Your task to perform on an android device: check android version Image 0: 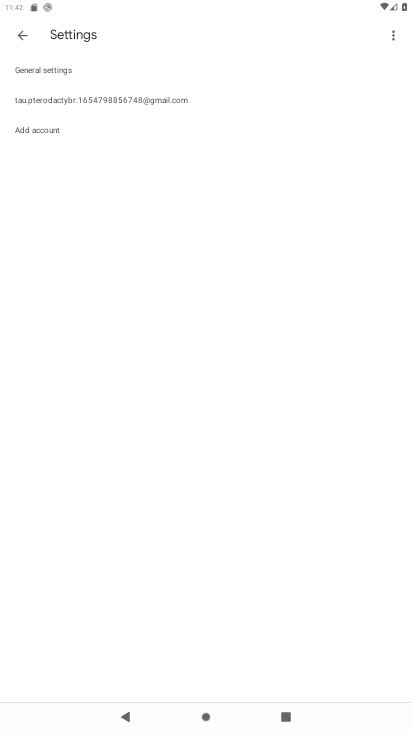
Step 0: press home button
Your task to perform on an android device: check android version Image 1: 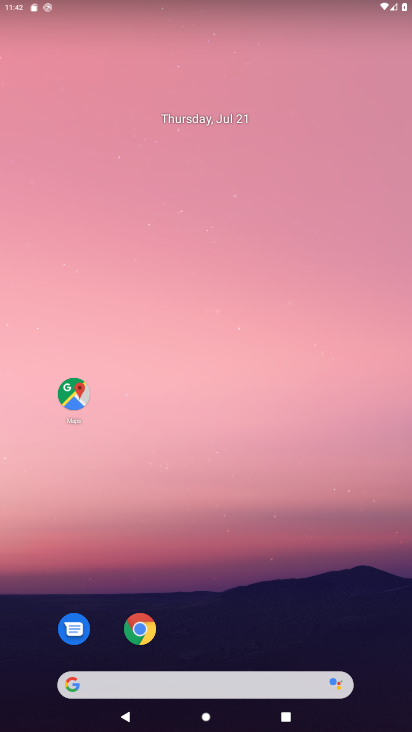
Step 1: drag from (202, 618) to (210, 87)
Your task to perform on an android device: check android version Image 2: 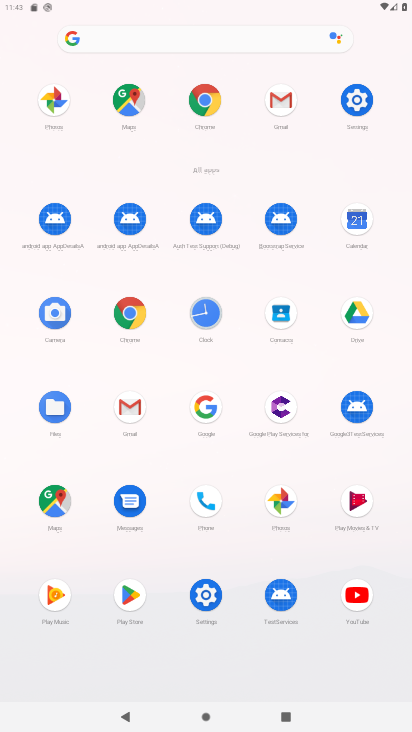
Step 2: click (205, 610)
Your task to perform on an android device: check android version Image 3: 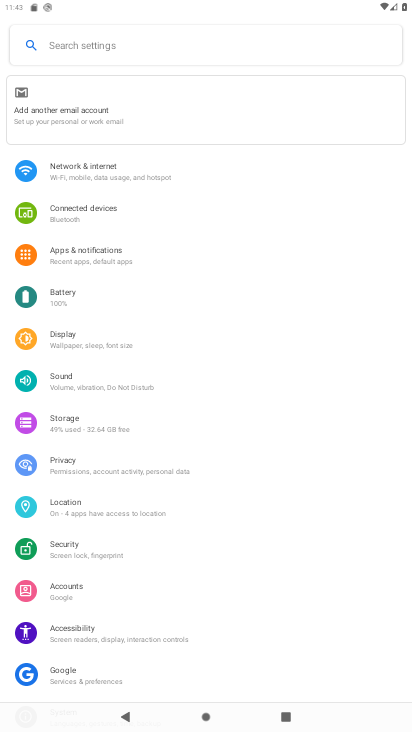
Step 3: drag from (97, 634) to (125, 378)
Your task to perform on an android device: check android version Image 4: 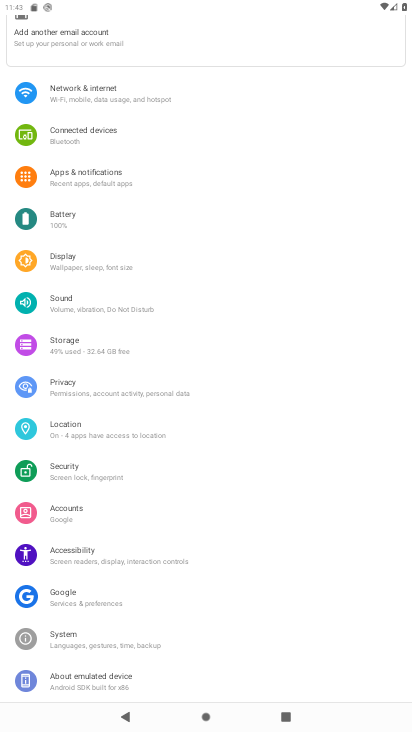
Step 4: click (68, 685)
Your task to perform on an android device: check android version Image 5: 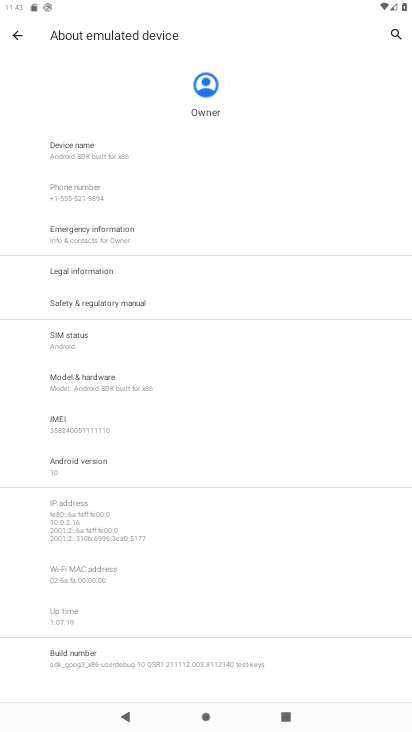
Step 5: click (88, 478)
Your task to perform on an android device: check android version Image 6: 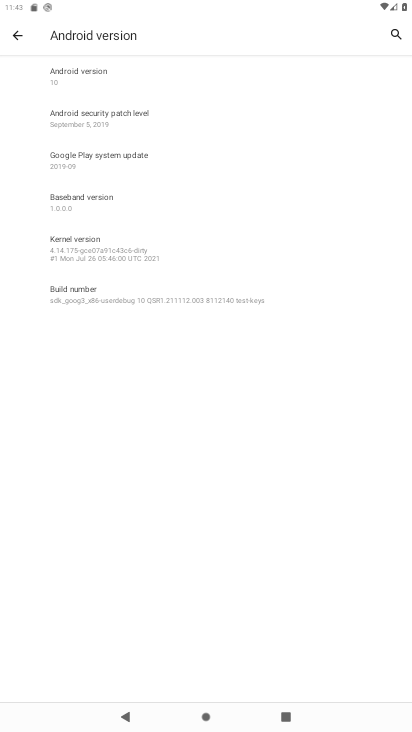
Step 6: click (107, 71)
Your task to perform on an android device: check android version Image 7: 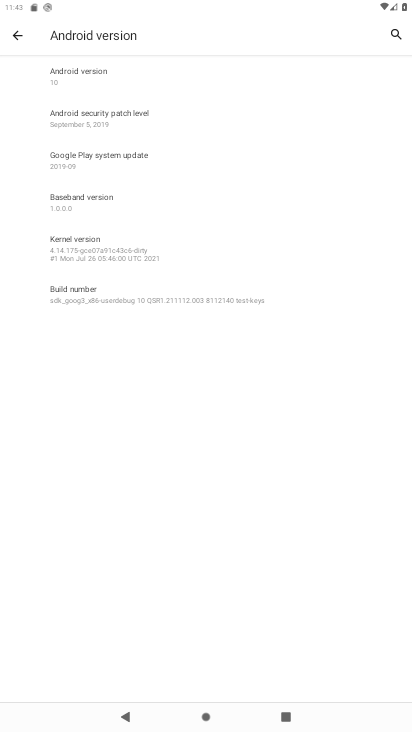
Step 7: task complete